Your task to perform on an android device: turn on the 24-hour format for clock Image 0: 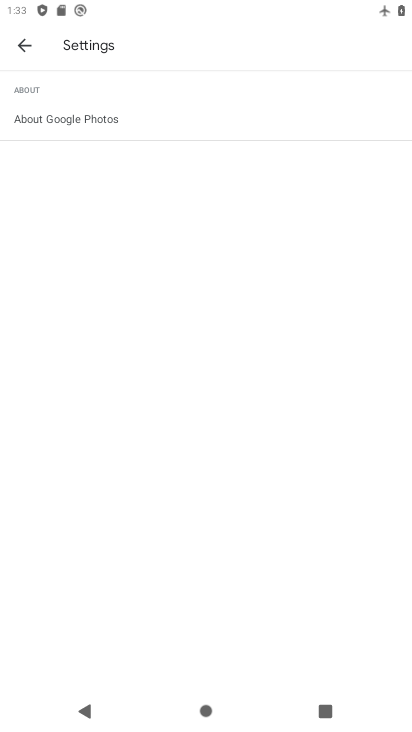
Step 0: press home button
Your task to perform on an android device: turn on the 24-hour format for clock Image 1: 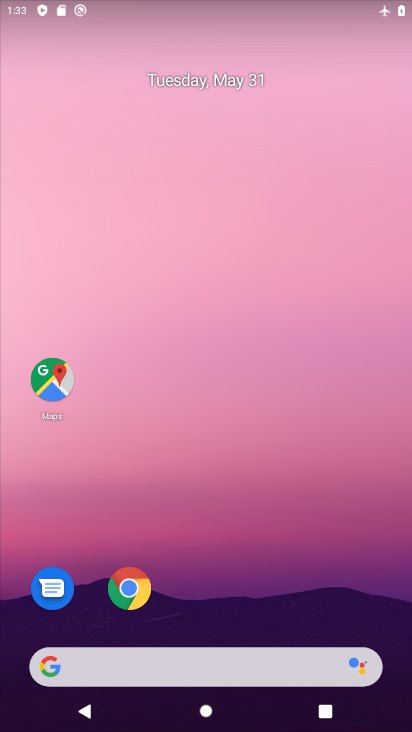
Step 1: drag from (349, 593) to (309, 195)
Your task to perform on an android device: turn on the 24-hour format for clock Image 2: 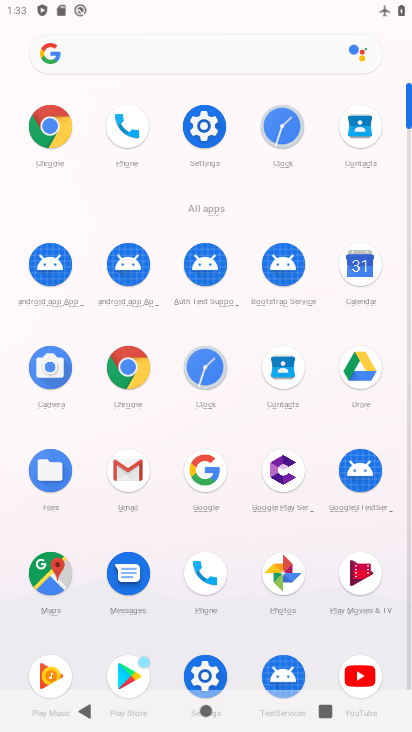
Step 2: click (203, 372)
Your task to perform on an android device: turn on the 24-hour format for clock Image 3: 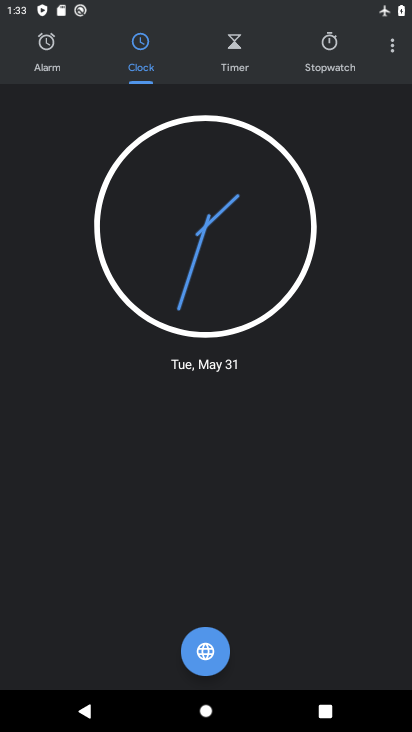
Step 3: click (391, 60)
Your task to perform on an android device: turn on the 24-hour format for clock Image 4: 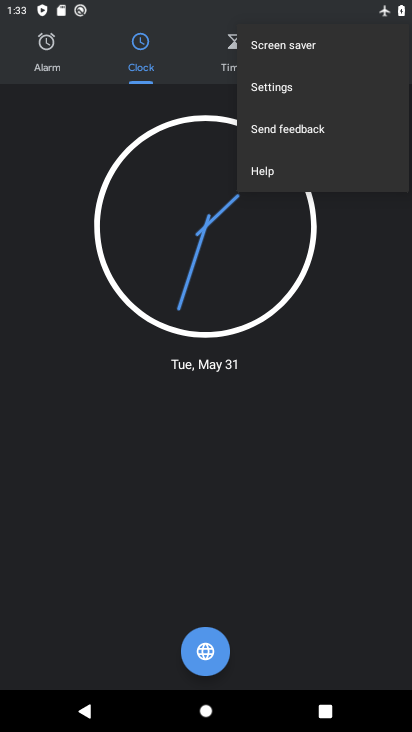
Step 4: click (313, 93)
Your task to perform on an android device: turn on the 24-hour format for clock Image 5: 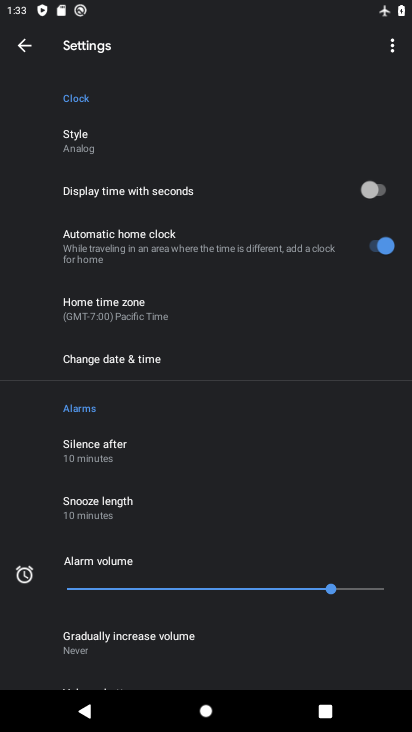
Step 5: drag from (308, 409) to (309, 323)
Your task to perform on an android device: turn on the 24-hour format for clock Image 6: 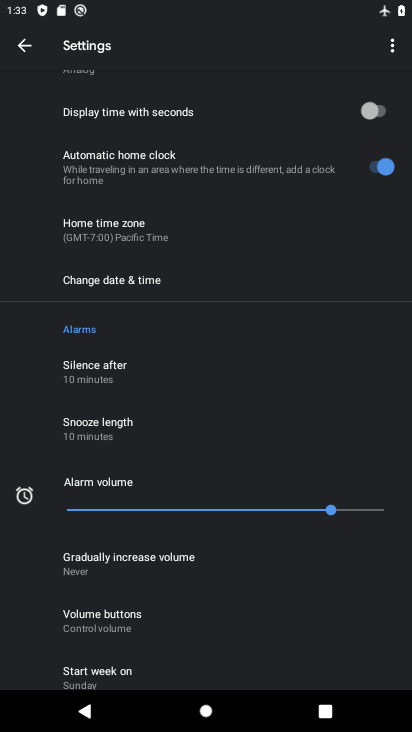
Step 6: drag from (324, 556) to (337, 441)
Your task to perform on an android device: turn on the 24-hour format for clock Image 7: 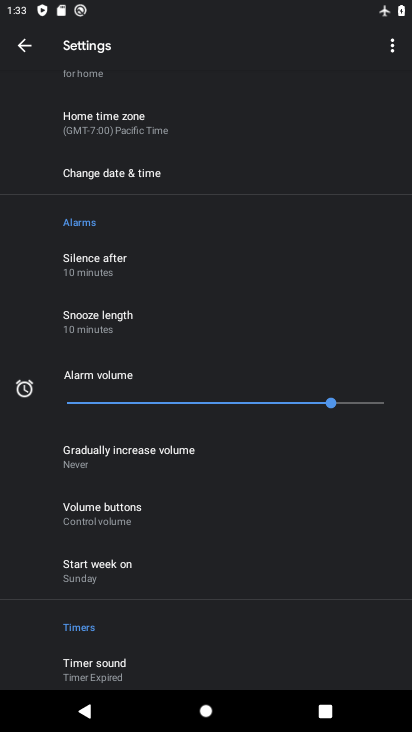
Step 7: drag from (313, 548) to (314, 455)
Your task to perform on an android device: turn on the 24-hour format for clock Image 8: 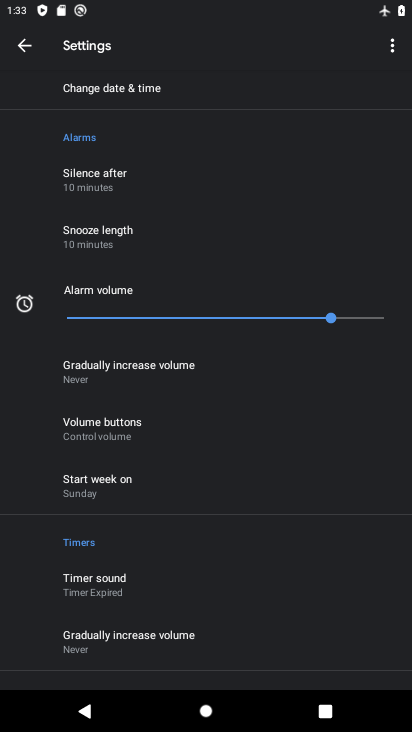
Step 8: drag from (301, 551) to (308, 456)
Your task to perform on an android device: turn on the 24-hour format for clock Image 9: 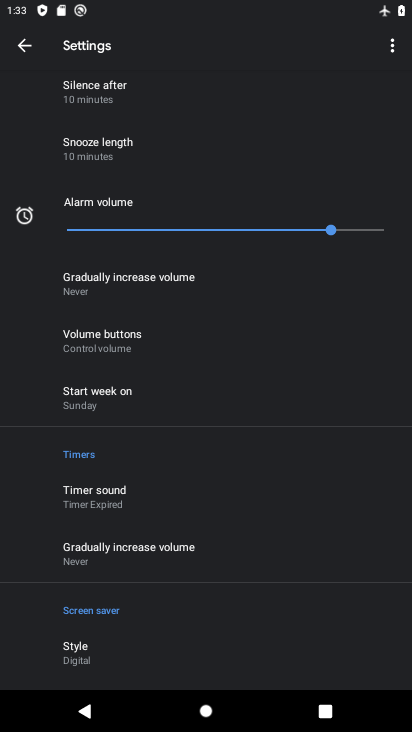
Step 9: drag from (301, 565) to (305, 449)
Your task to perform on an android device: turn on the 24-hour format for clock Image 10: 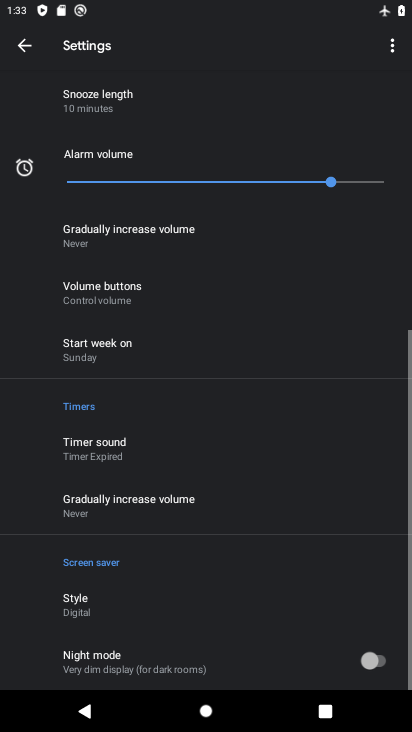
Step 10: drag from (319, 320) to (300, 416)
Your task to perform on an android device: turn on the 24-hour format for clock Image 11: 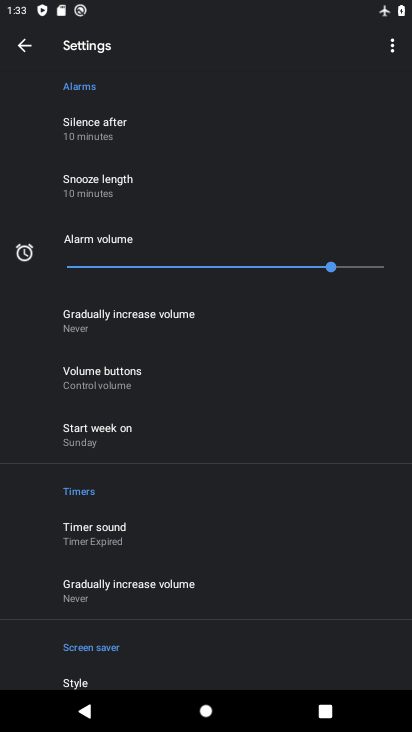
Step 11: drag from (296, 217) to (291, 346)
Your task to perform on an android device: turn on the 24-hour format for clock Image 12: 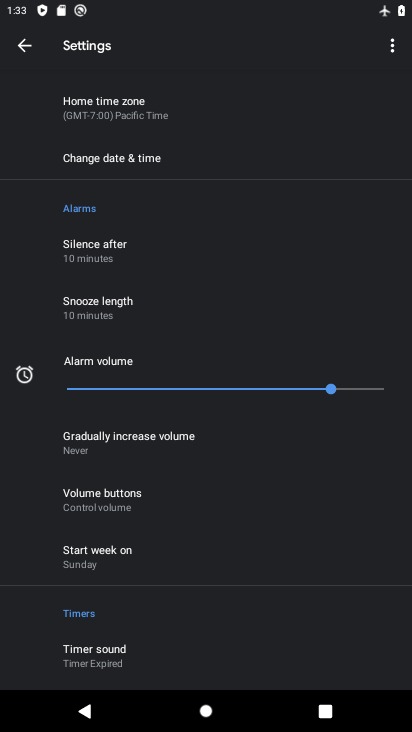
Step 12: drag from (286, 168) to (280, 322)
Your task to perform on an android device: turn on the 24-hour format for clock Image 13: 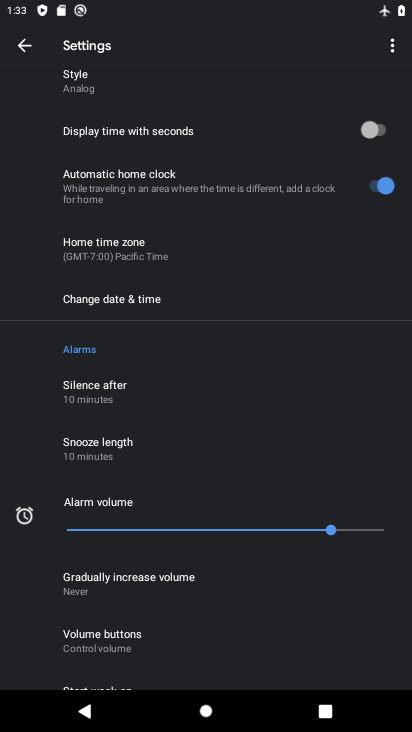
Step 13: drag from (289, 136) to (270, 258)
Your task to perform on an android device: turn on the 24-hour format for clock Image 14: 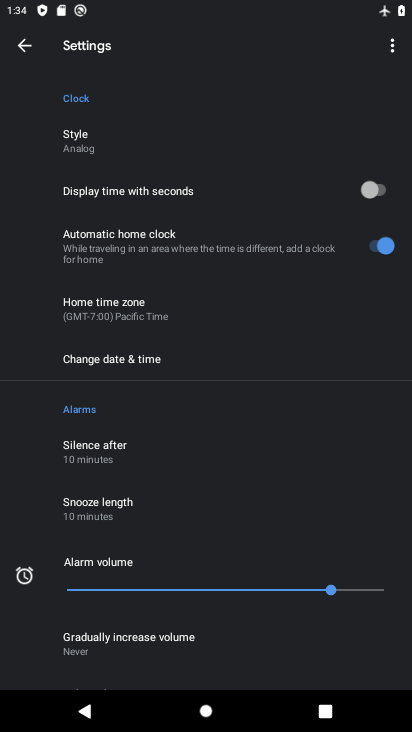
Step 14: click (238, 376)
Your task to perform on an android device: turn on the 24-hour format for clock Image 15: 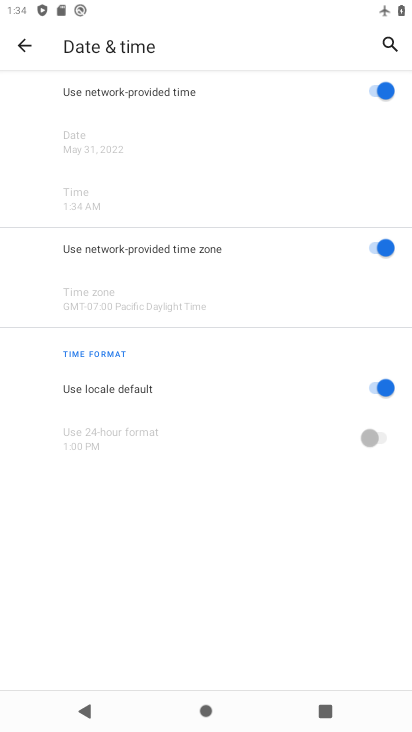
Step 15: click (376, 395)
Your task to perform on an android device: turn on the 24-hour format for clock Image 16: 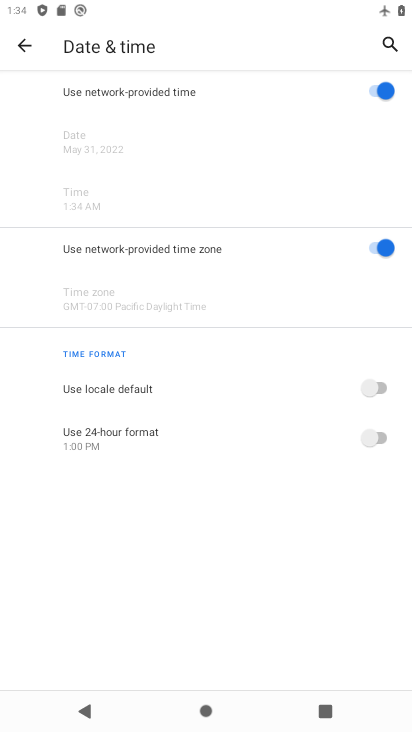
Step 16: click (367, 444)
Your task to perform on an android device: turn on the 24-hour format for clock Image 17: 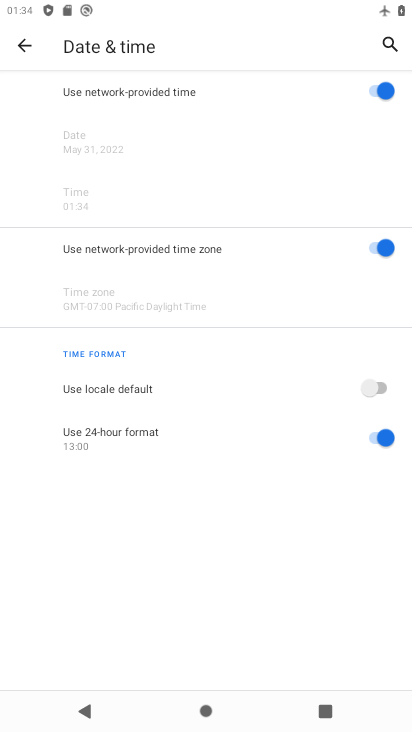
Step 17: task complete